Your task to perform on an android device: What's the news in Venezuela? Image 0: 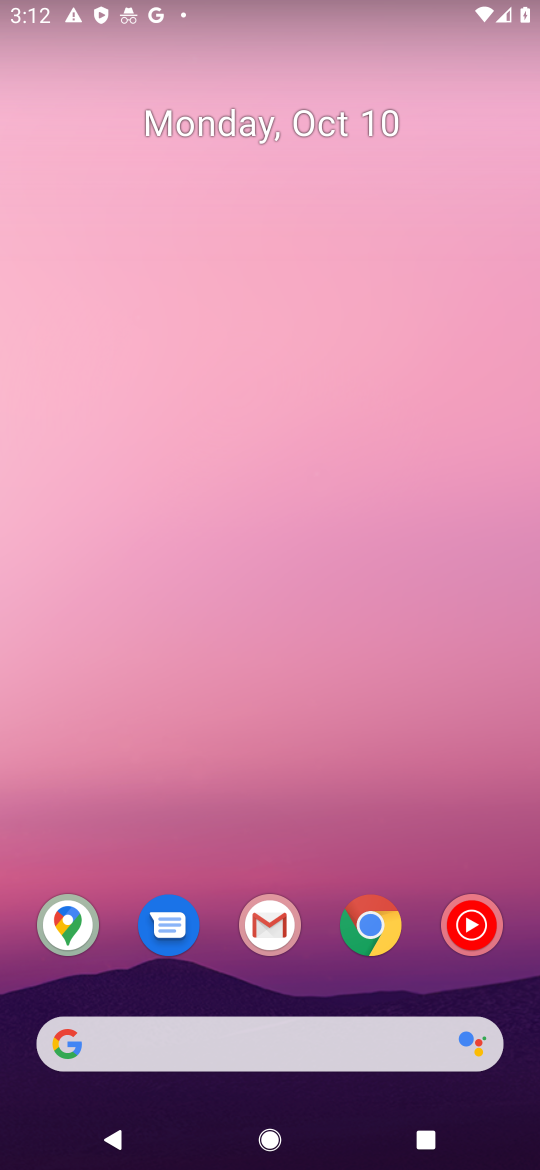
Step 0: click (374, 944)
Your task to perform on an android device: What's the news in Venezuela? Image 1: 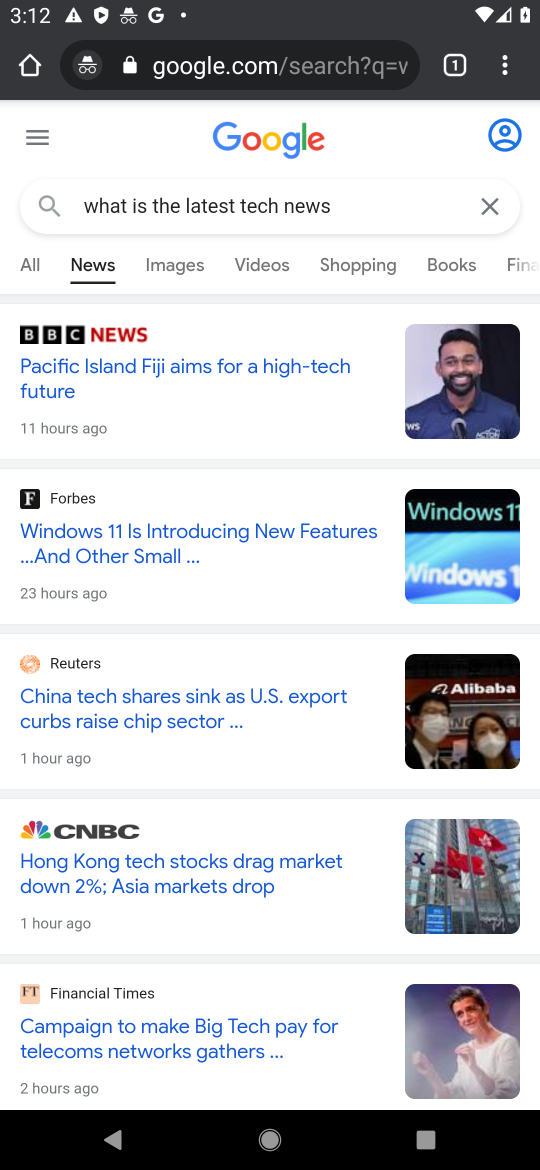
Step 1: click (485, 199)
Your task to perform on an android device: What's the news in Venezuela? Image 2: 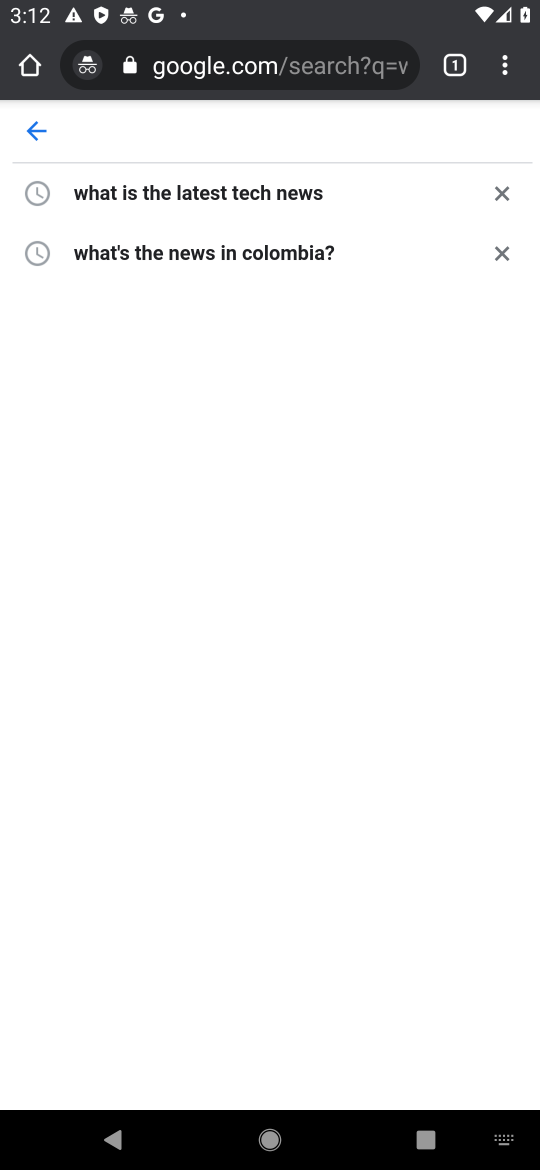
Step 2: type "What's the news in Venezuela?"
Your task to perform on an android device: What's the news in Venezuela? Image 3: 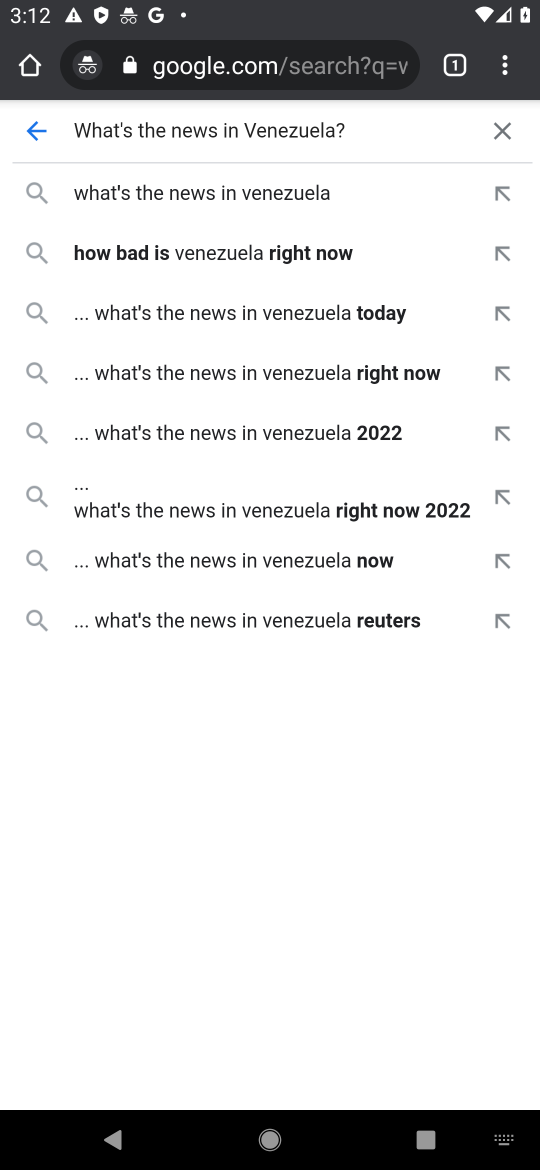
Step 3: click (304, 179)
Your task to perform on an android device: What's the news in Venezuela? Image 4: 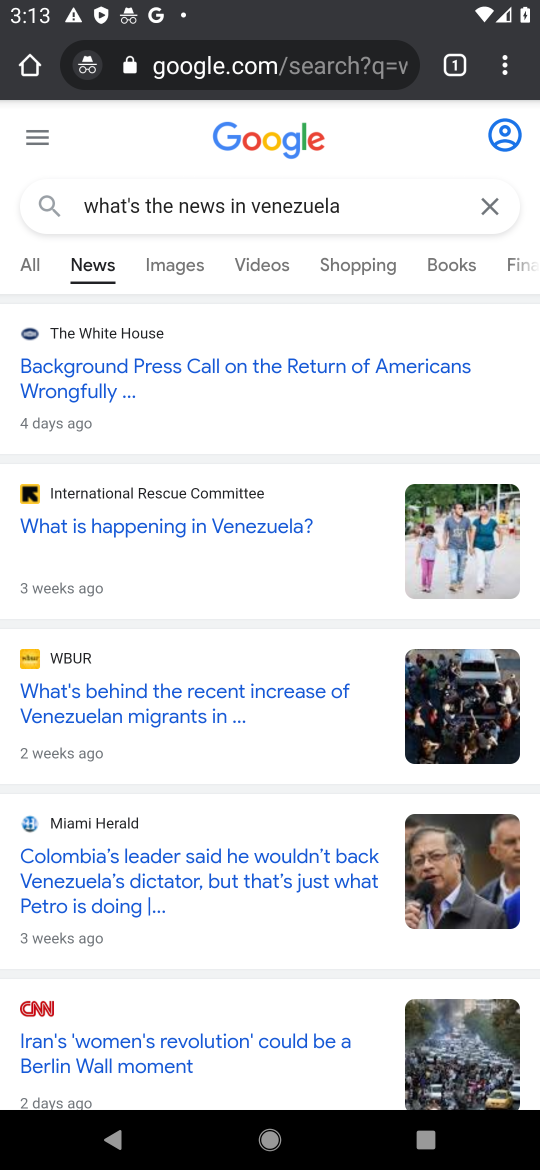
Step 4: task complete